Your task to perform on an android device: Open Youtube and go to "Your channel" Image 0: 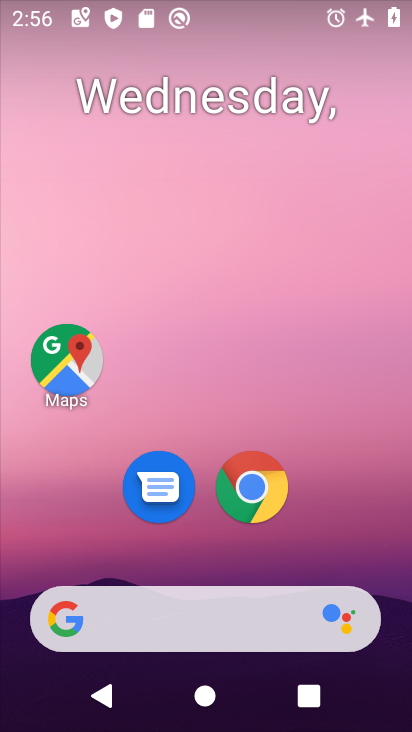
Step 0: drag from (360, 557) to (372, 211)
Your task to perform on an android device: Open Youtube and go to "Your channel" Image 1: 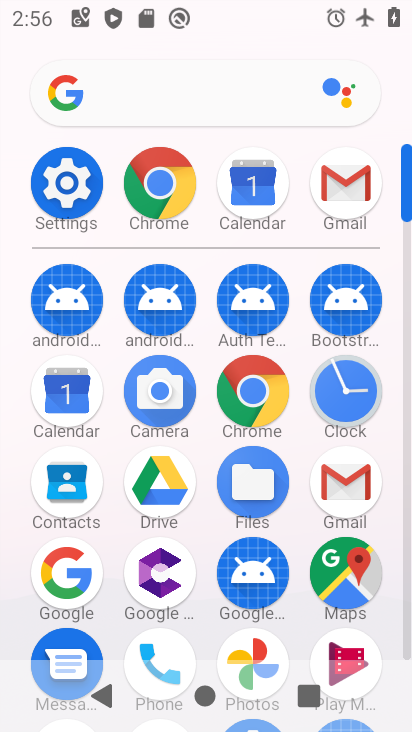
Step 1: drag from (298, 532) to (286, 330)
Your task to perform on an android device: Open Youtube and go to "Your channel" Image 2: 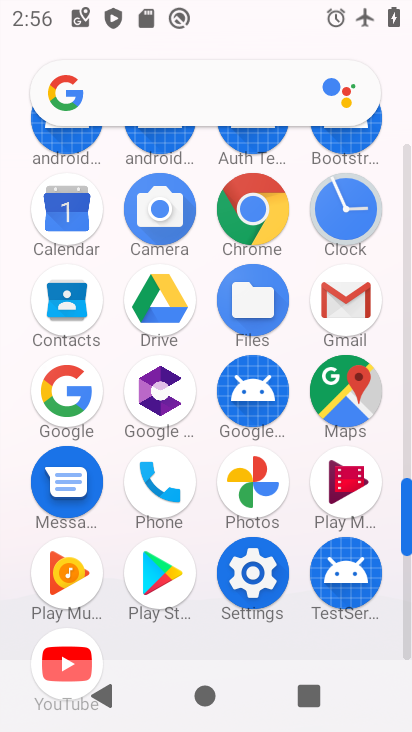
Step 2: drag from (193, 621) to (201, 463)
Your task to perform on an android device: Open Youtube and go to "Your channel" Image 3: 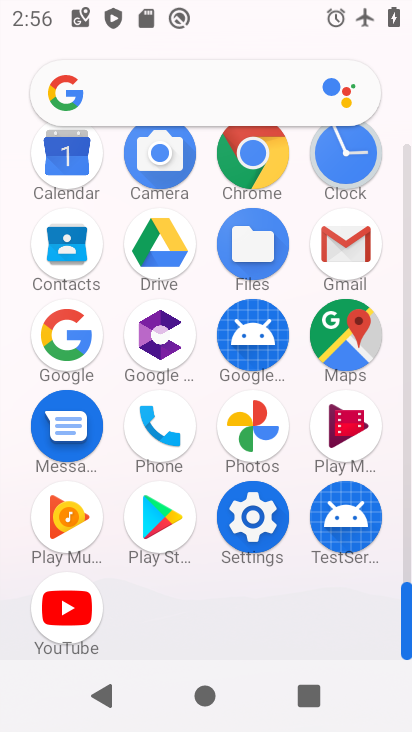
Step 3: click (71, 608)
Your task to perform on an android device: Open Youtube and go to "Your channel" Image 4: 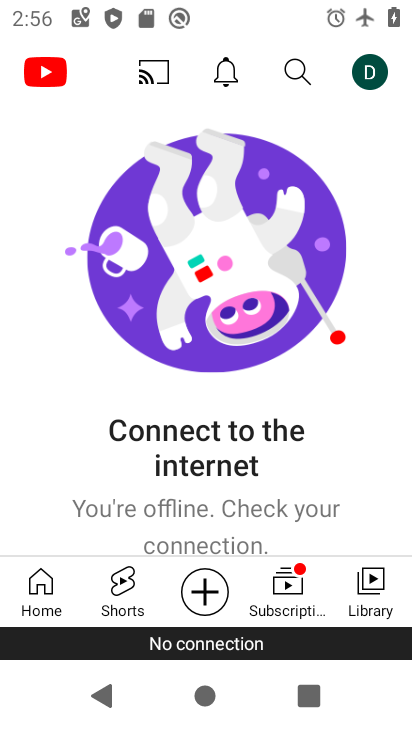
Step 4: click (372, 77)
Your task to perform on an android device: Open Youtube and go to "Your channel" Image 5: 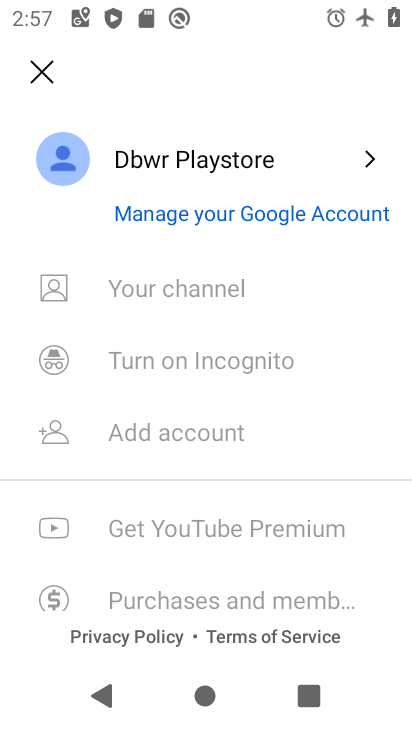
Step 5: click (222, 293)
Your task to perform on an android device: Open Youtube and go to "Your channel" Image 6: 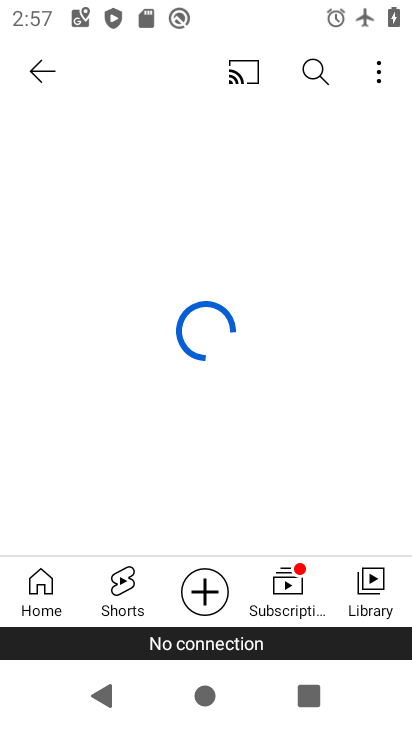
Step 6: task complete